Your task to perform on an android device: refresh tabs in the chrome app Image 0: 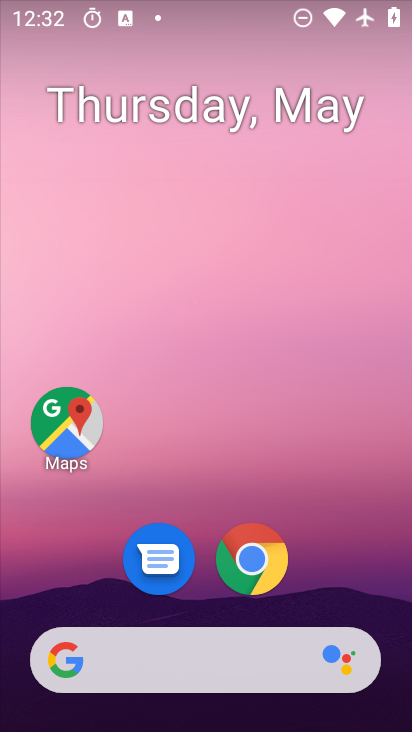
Step 0: drag from (211, 699) to (246, 176)
Your task to perform on an android device: refresh tabs in the chrome app Image 1: 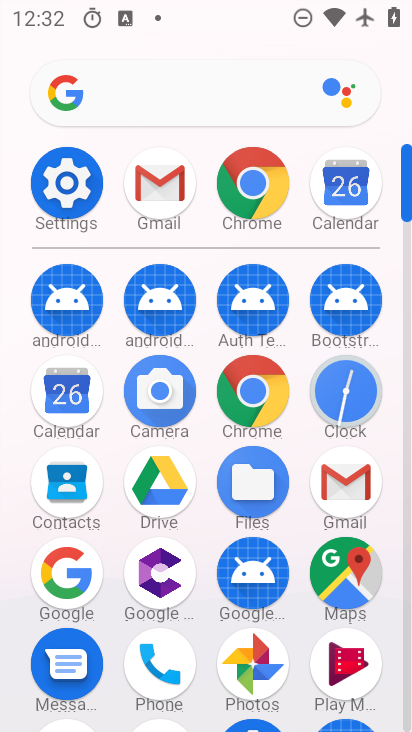
Step 1: click (256, 202)
Your task to perform on an android device: refresh tabs in the chrome app Image 2: 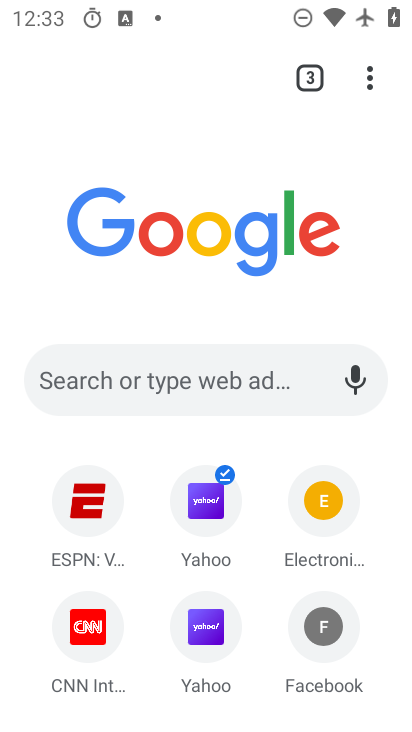
Step 2: click (366, 75)
Your task to perform on an android device: refresh tabs in the chrome app Image 3: 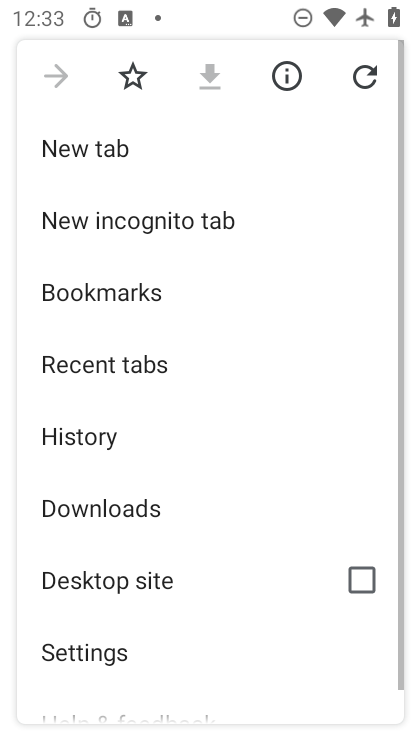
Step 3: click (367, 85)
Your task to perform on an android device: refresh tabs in the chrome app Image 4: 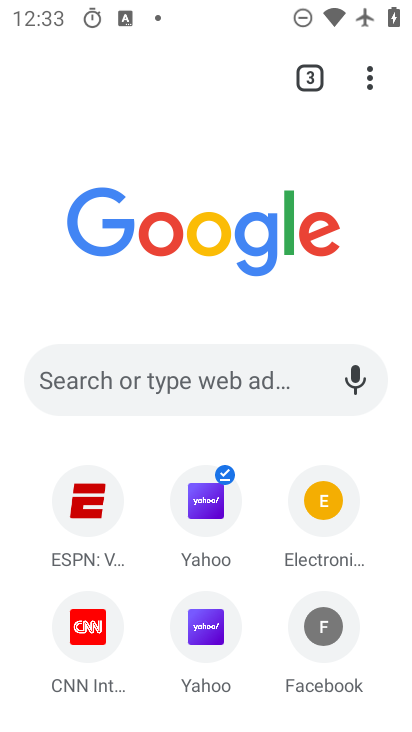
Step 4: task complete